Your task to perform on an android device: turn off notifications settings in the gmail app Image 0: 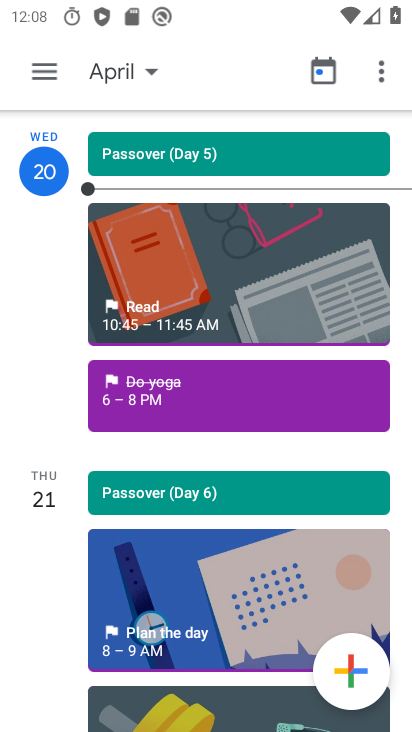
Step 0: press home button
Your task to perform on an android device: turn off notifications settings in the gmail app Image 1: 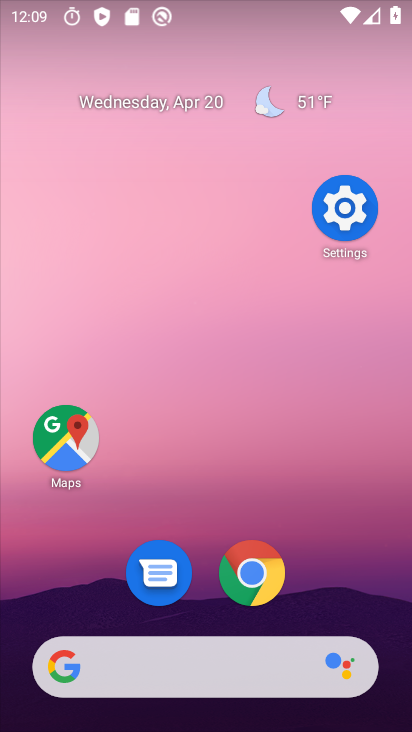
Step 1: drag from (337, 578) to (387, 146)
Your task to perform on an android device: turn off notifications settings in the gmail app Image 2: 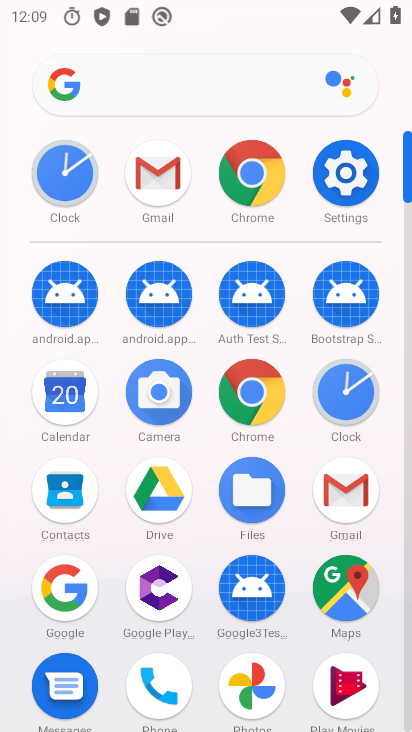
Step 2: click (362, 517)
Your task to perform on an android device: turn off notifications settings in the gmail app Image 3: 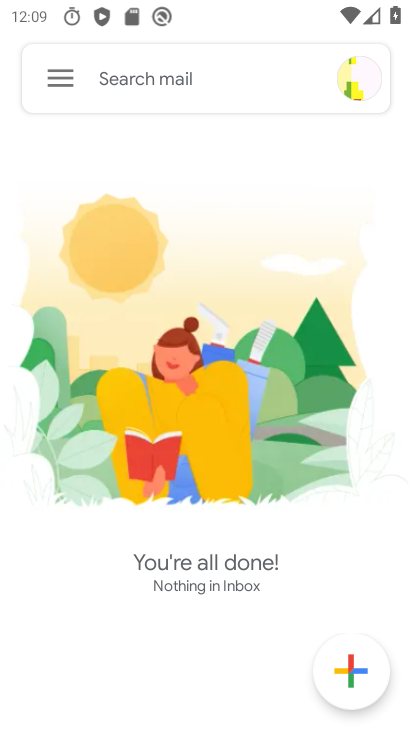
Step 3: click (53, 79)
Your task to perform on an android device: turn off notifications settings in the gmail app Image 4: 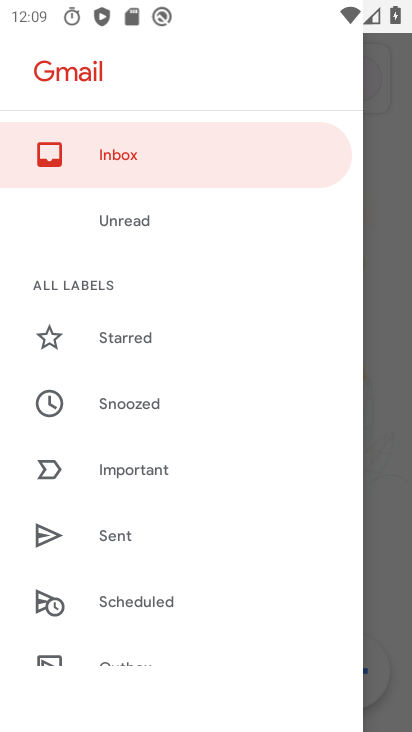
Step 4: drag from (163, 643) to (179, 225)
Your task to perform on an android device: turn off notifications settings in the gmail app Image 5: 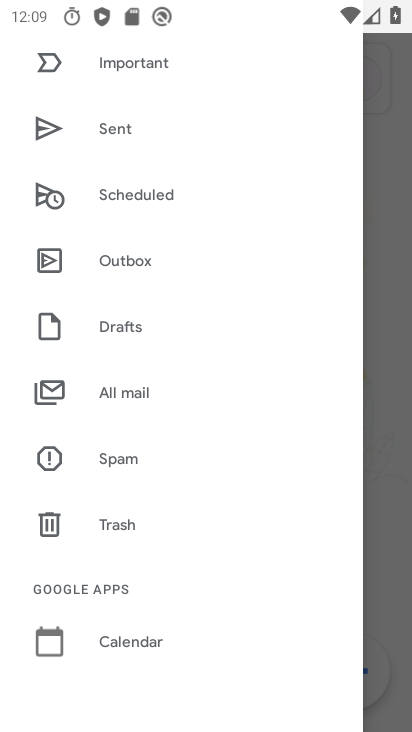
Step 5: drag from (174, 598) to (192, 224)
Your task to perform on an android device: turn off notifications settings in the gmail app Image 6: 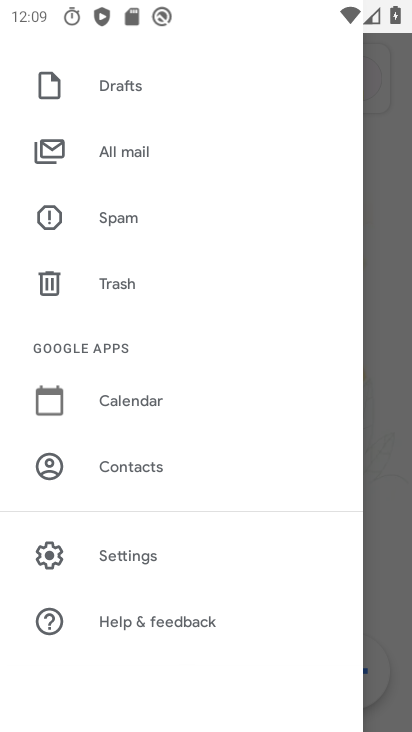
Step 6: click (163, 561)
Your task to perform on an android device: turn off notifications settings in the gmail app Image 7: 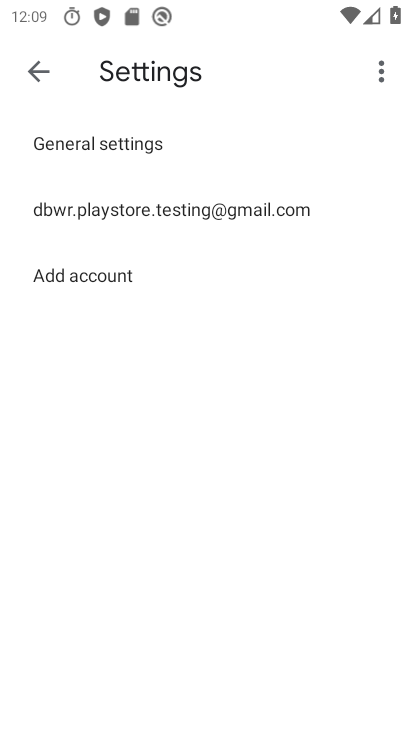
Step 7: click (157, 210)
Your task to perform on an android device: turn off notifications settings in the gmail app Image 8: 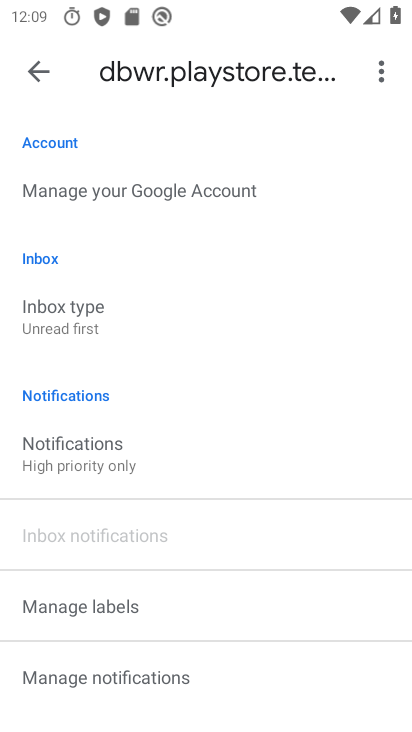
Step 8: click (104, 456)
Your task to perform on an android device: turn off notifications settings in the gmail app Image 9: 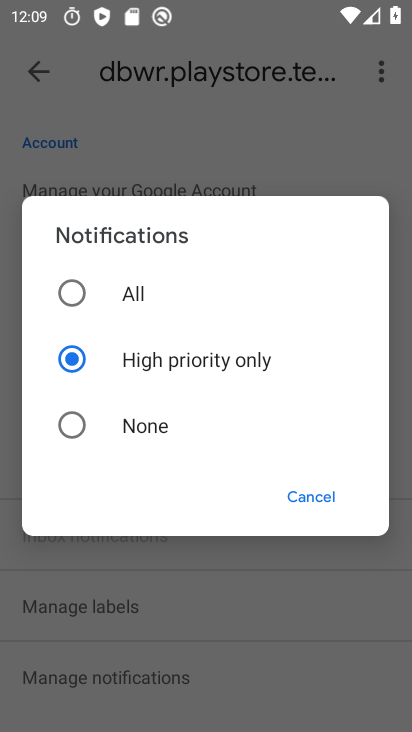
Step 9: click (126, 426)
Your task to perform on an android device: turn off notifications settings in the gmail app Image 10: 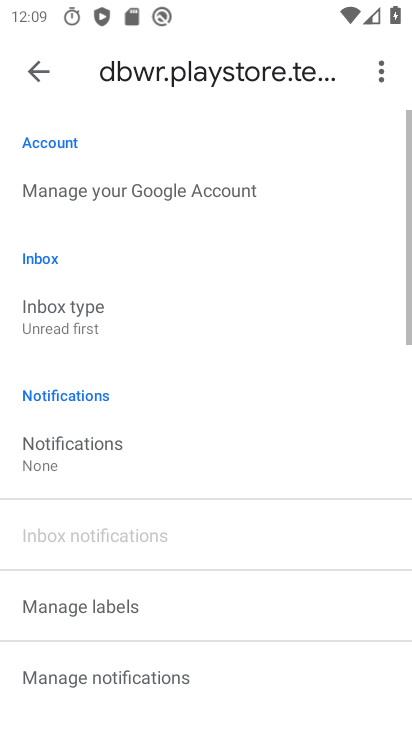
Step 10: task complete